Your task to perform on an android device: turn notification dots off Image 0: 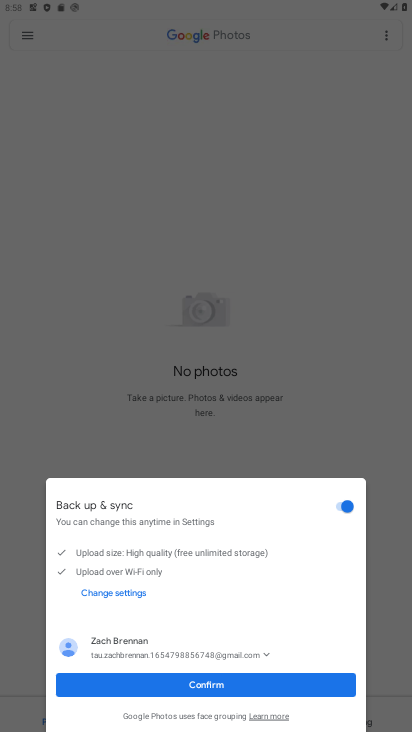
Step 0: press home button
Your task to perform on an android device: turn notification dots off Image 1: 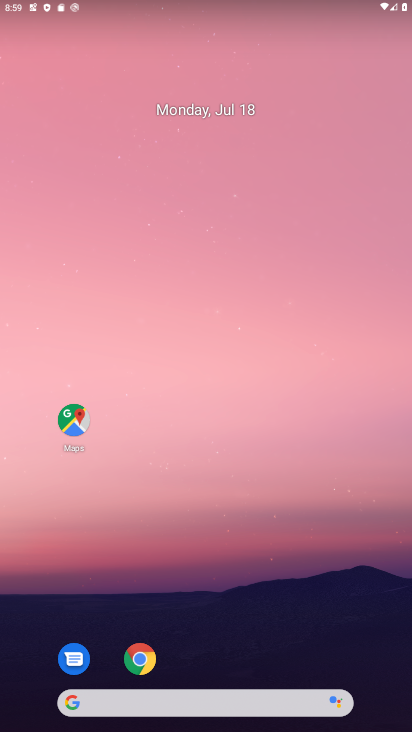
Step 1: drag from (304, 613) to (253, 51)
Your task to perform on an android device: turn notification dots off Image 2: 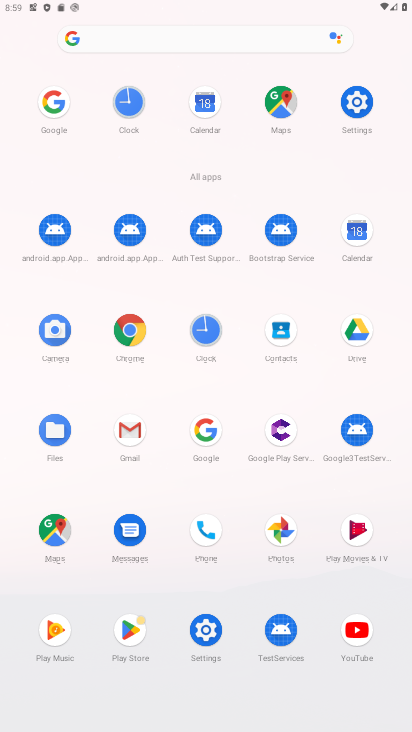
Step 2: click (378, 106)
Your task to perform on an android device: turn notification dots off Image 3: 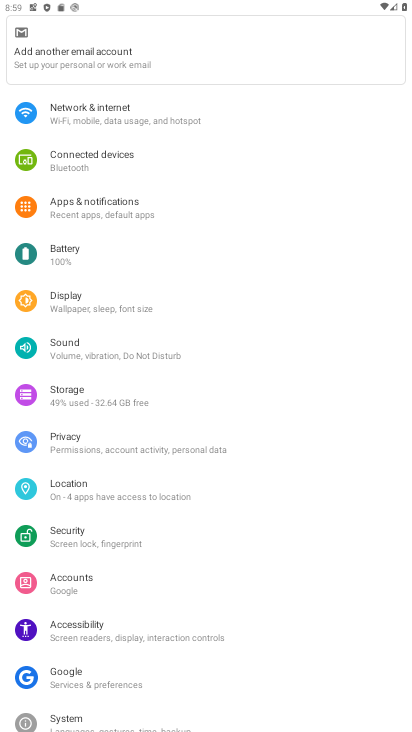
Step 3: click (128, 211)
Your task to perform on an android device: turn notification dots off Image 4: 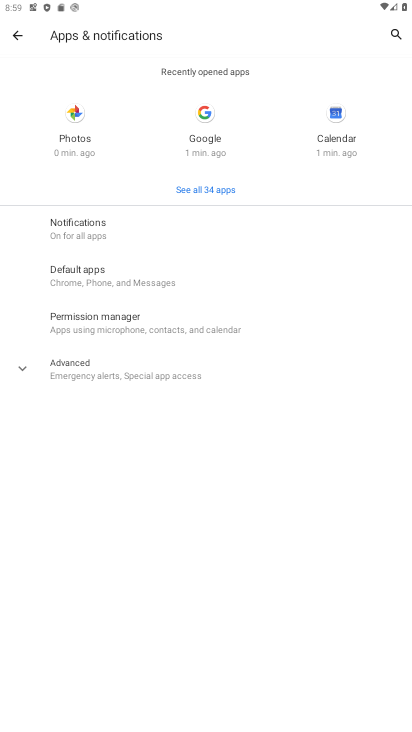
Step 4: click (70, 241)
Your task to perform on an android device: turn notification dots off Image 5: 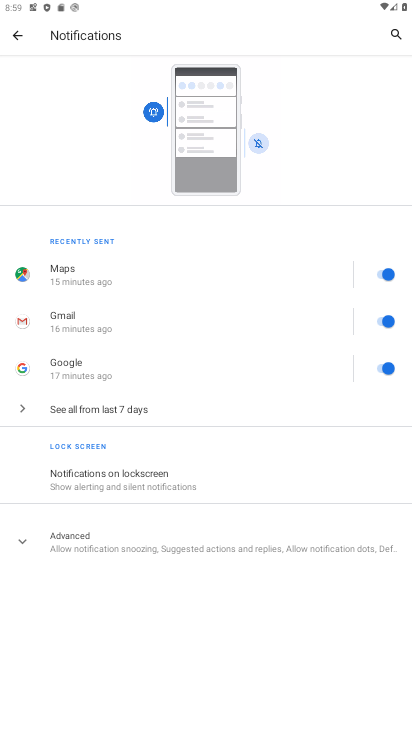
Step 5: click (88, 539)
Your task to perform on an android device: turn notification dots off Image 6: 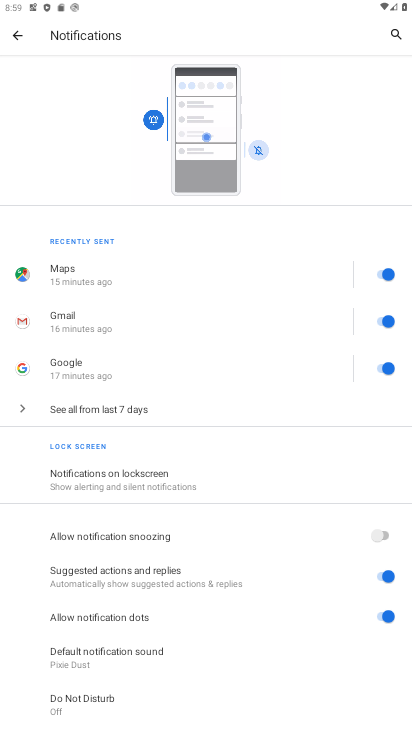
Step 6: drag from (157, 634) to (252, 219)
Your task to perform on an android device: turn notification dots off Image 7: 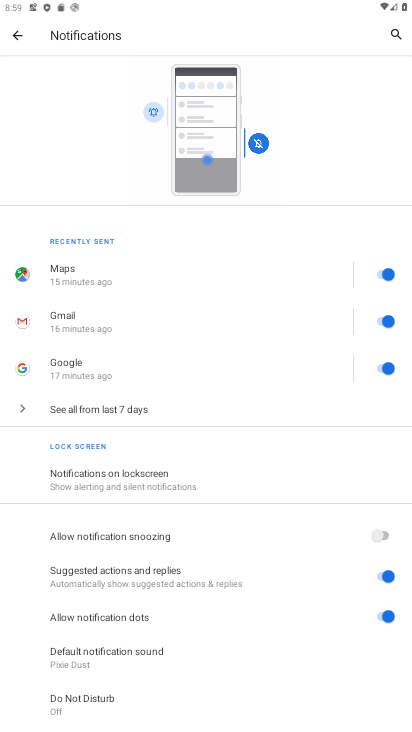
Step 7: drag from (183, 592) to (19, 0)
Your task to perform on an android device: turn notification dots off Image 8: 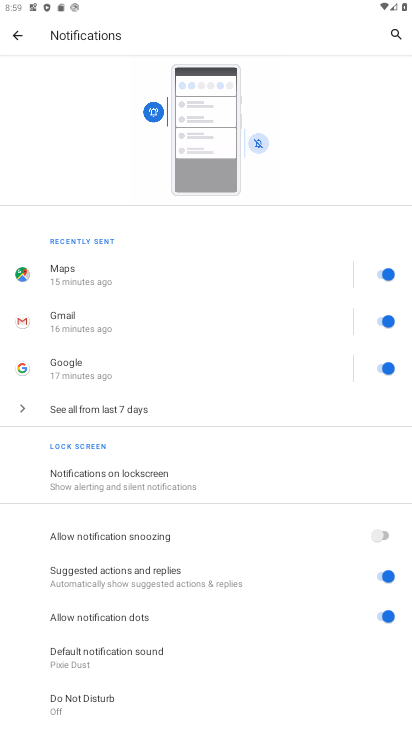
Step 8: drag from (228, 649) to (209, 219)
Your task to perform on an android device: turn notification dots off Image 9: 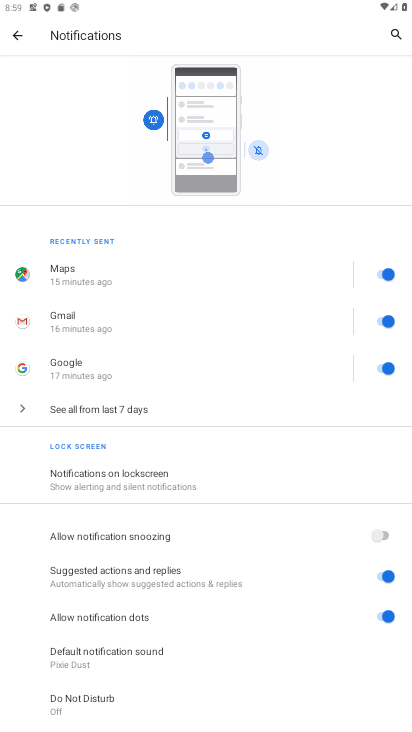
Step 9: click (393, 622)
Your task to perform on an android device: turn notification dots off Image 10: 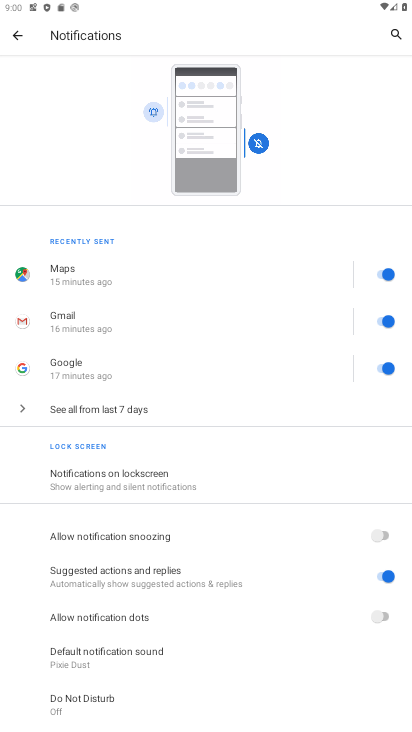
Step 10: task complete